Your task to perform on an android device: Find coffee shops on Maps Image 0: 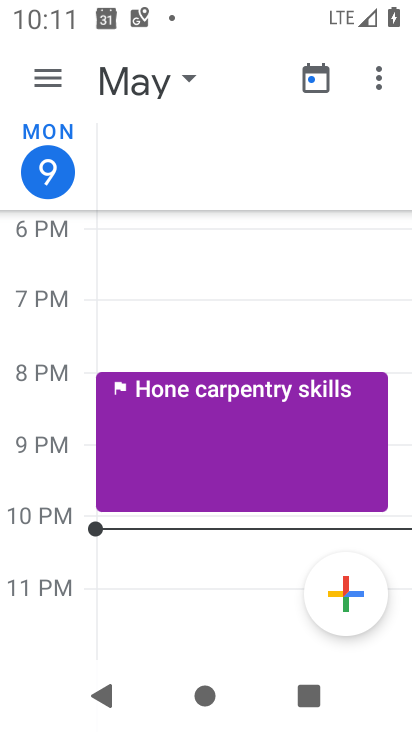
Step 0: press back button
Your task to perform on an android device: Find coffee shops on Maps Image 1: 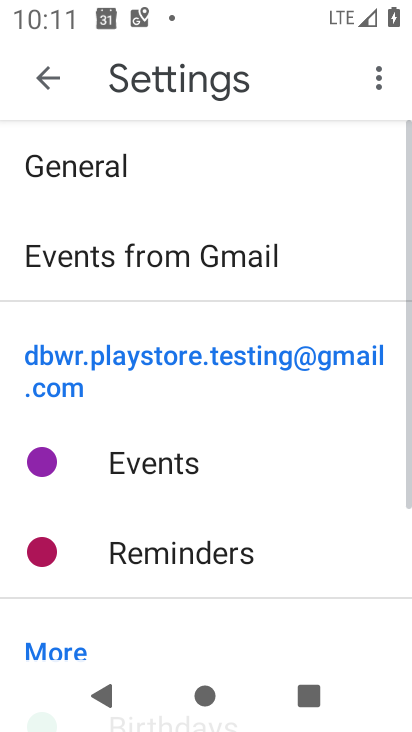
Step 1: press back button
Your task to perform on an android device: Find coffee shops on Maps Image 2: 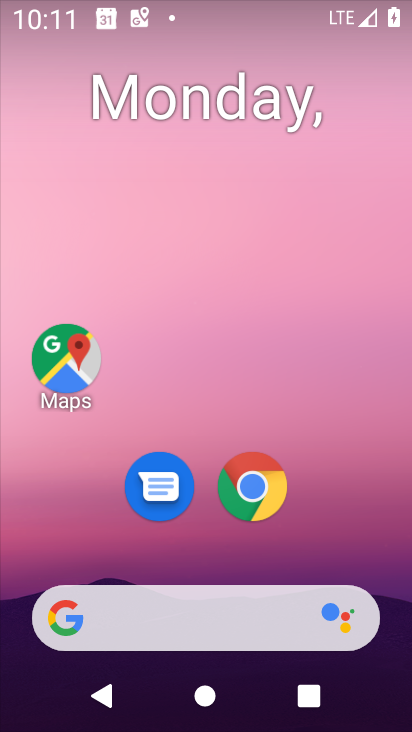
Step 2: drag from (394, 572) to (26, 1)
Your task to perform on an android device: Find coffee shops on Maps Image 3: 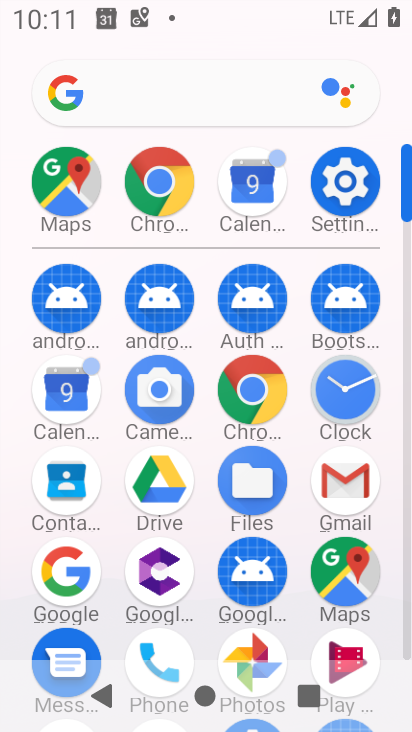
Step 3: click (61, 177)
Your task to perform on an android device: Find coffee shops on Maps Image 4: 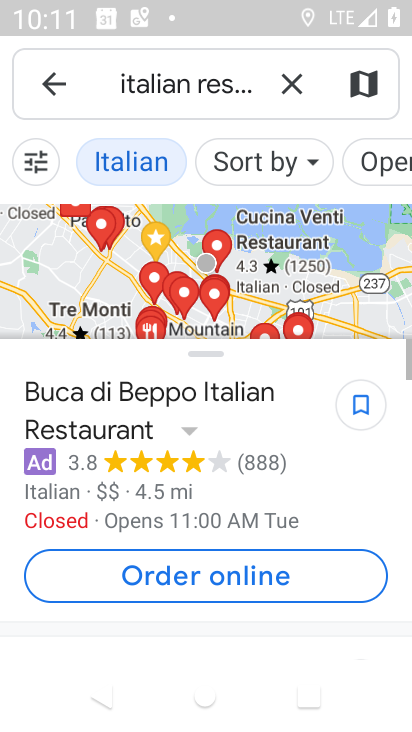
Step 4: click (304, 77)
Your task to perform on an android device: Find coffee shops on Maps Image 5: 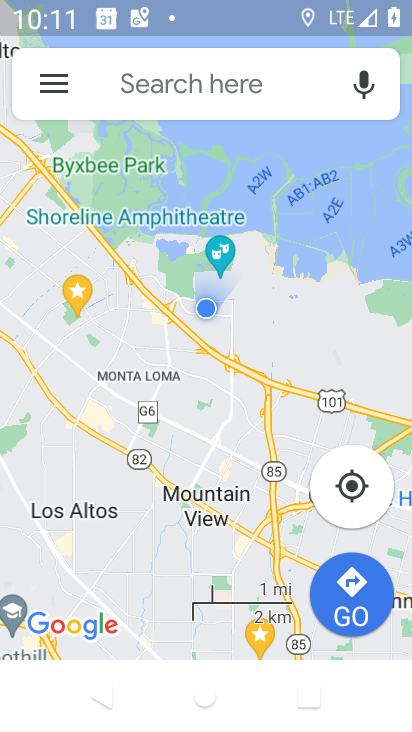
Step 5: click (295, 81)
Your task to perform on an android device: Find coffee shops on Maps Image 6: 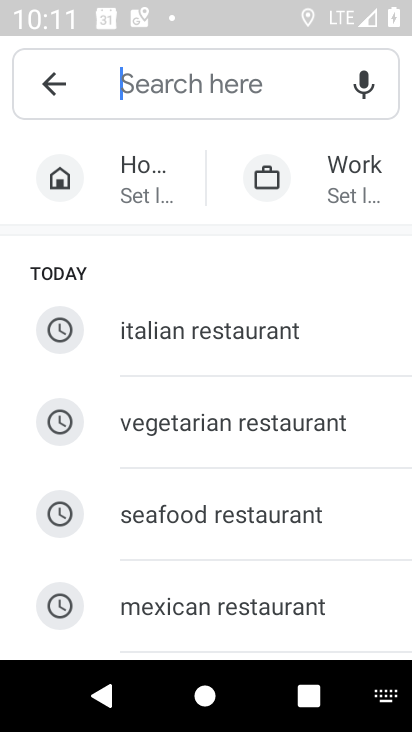
Step 6: type "coffee shops "
Your task to perform on an android device: Find coffee shops on Maps Image 7: 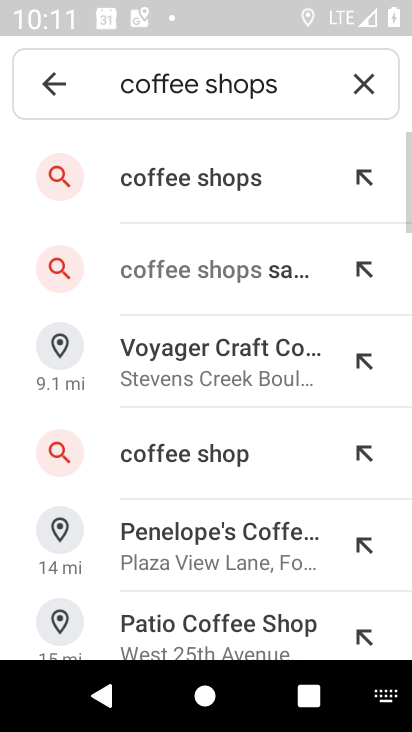
Step 7: click (221, 173)
Your task to perform on an android device: Find coffee shops on Maps Image 8: 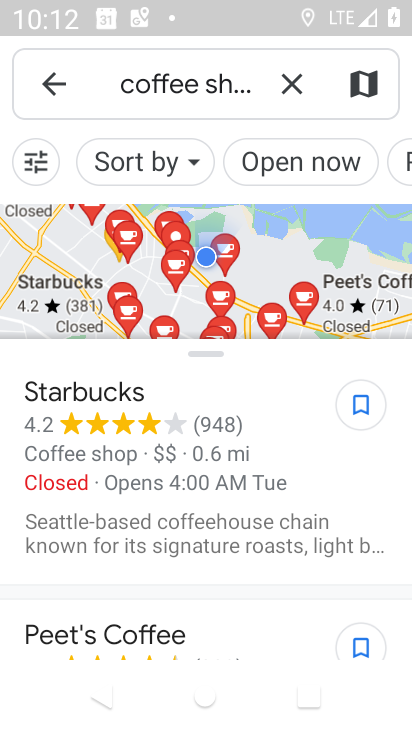
Step 8: task complete